Your task to perform on an android device: turn on airplane mode Image 0: 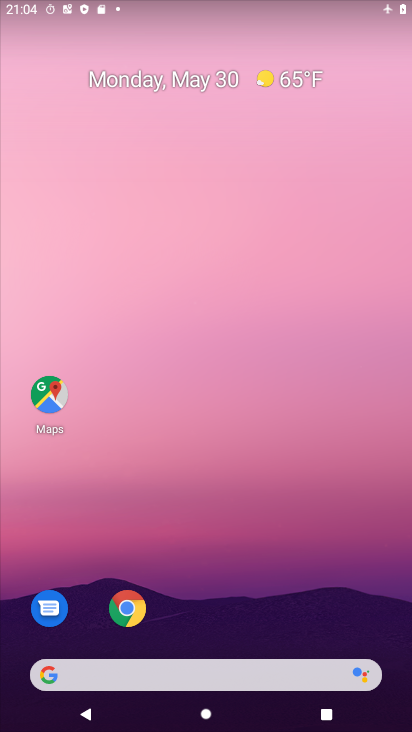
Step 0: drag from (189, 629) to (181, 221)
Your task to perform on an android device: turn on airplane mode Image 1: 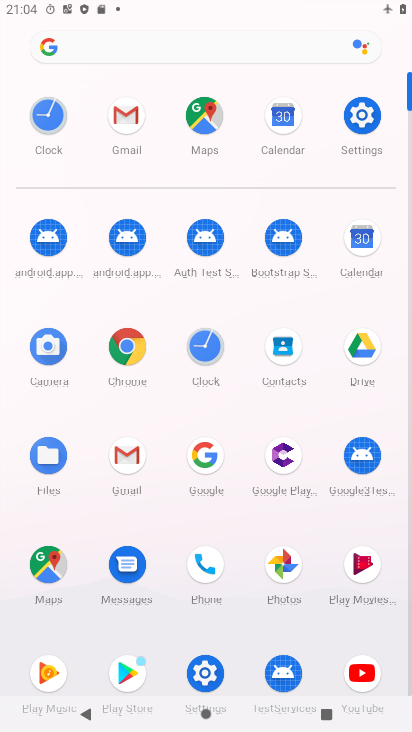
Step 1: click (350, 115)
Your task to perform on an android device: turn on airplane mode Image 2: 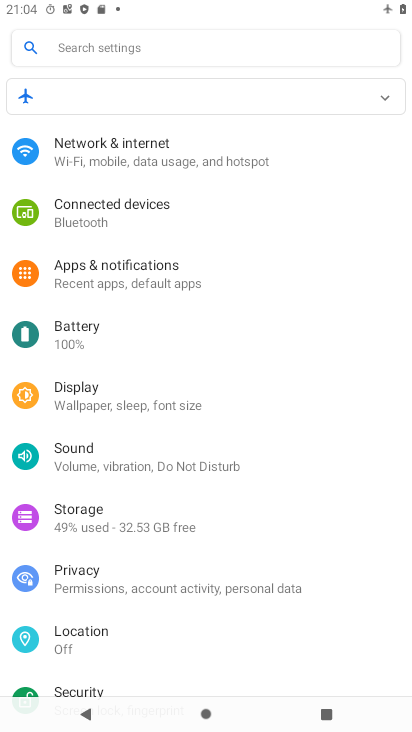
Step 2: click (177, 151)
Your task to perform on an android device: turn on airplane mode Image 3: 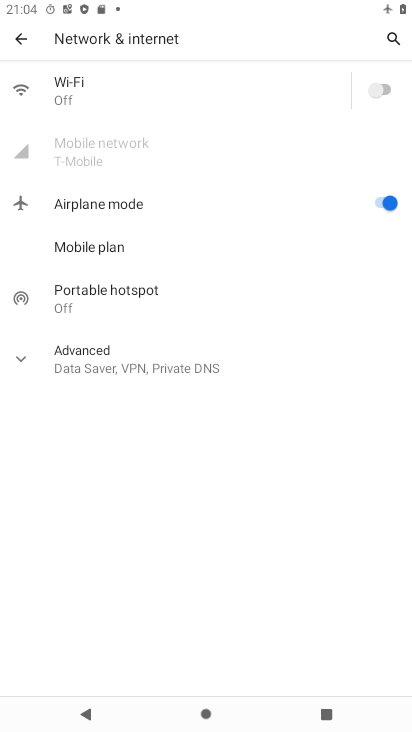
Step 3: task complete